Your task to perform on an android device: Check the news Image 0: 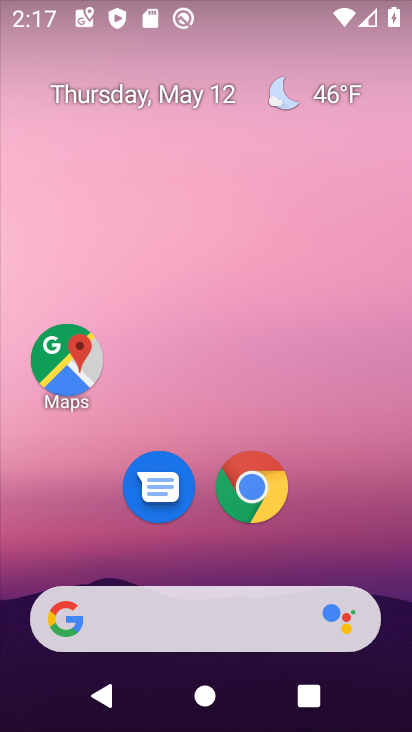
Step 0: click (197, 628)
Your task to perform on an android device: Check the news Image 1: 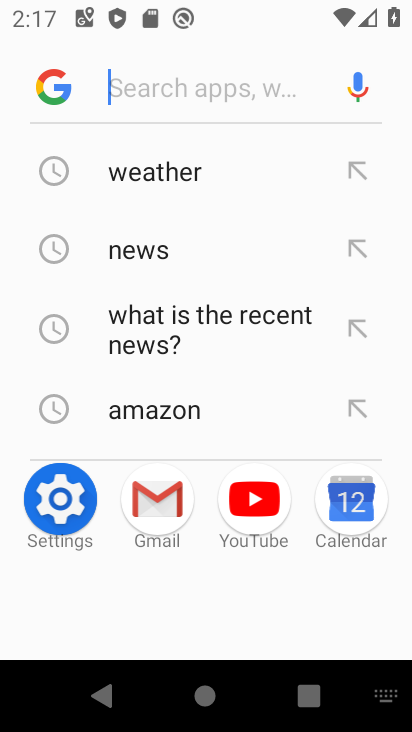
Step 1: type "news"
Your task to perform on an android device: Check the news Image 2: 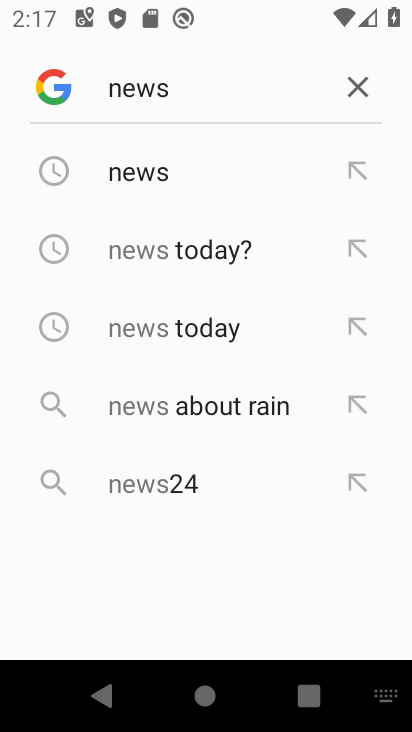
Step 2: click (127, 180)
Your task to perform on an android device: Check the news Image 3: 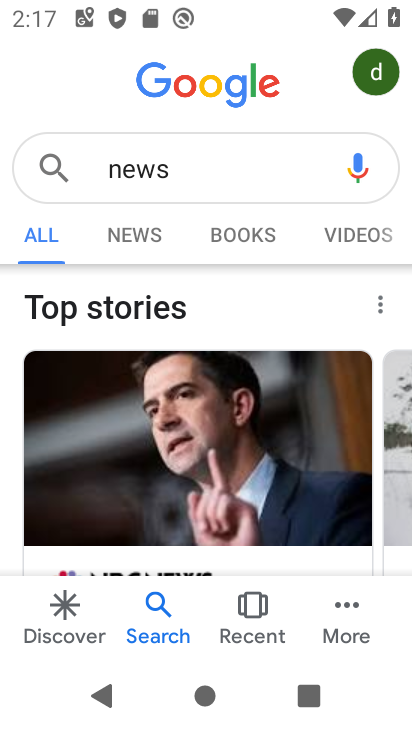
Step 3: task complete